Your task to perform on an android device: Open Chrome and go to settings Image 0: 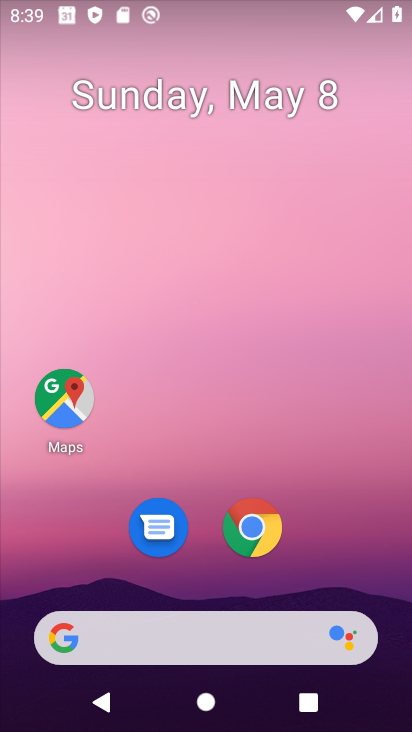
Step 0: click (254, 527)
Your task to perform on an android device: Open Chrome and go to settings Image 1: 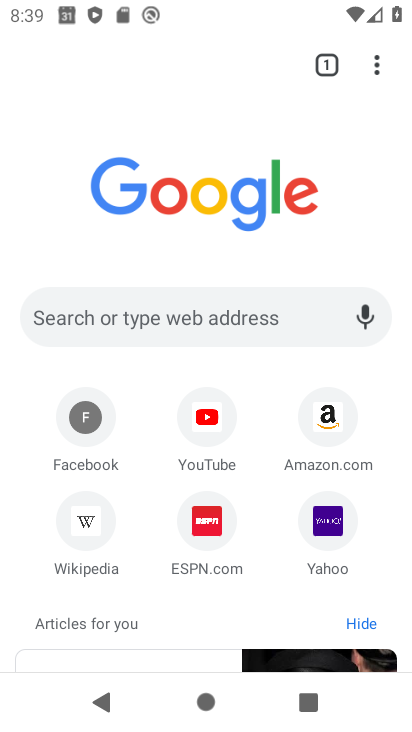
Step 1: click (372, 65)
Your task to perform on an android device: Open Chrome and go to settings Image 2: 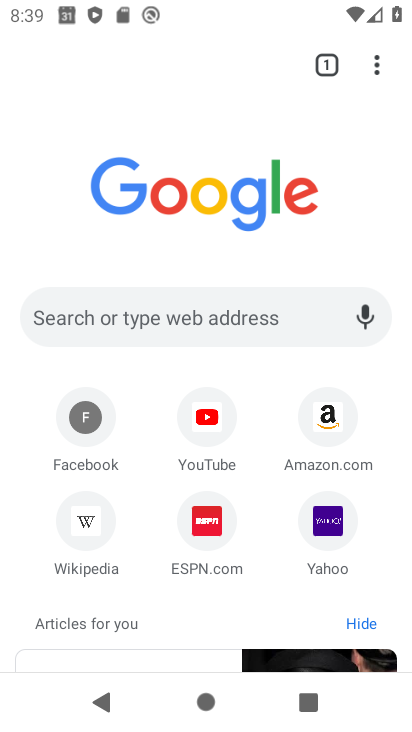
Step 2: click (369, 61)
Your task to perform on an android device: Open Chrome and go to settings Image 3: 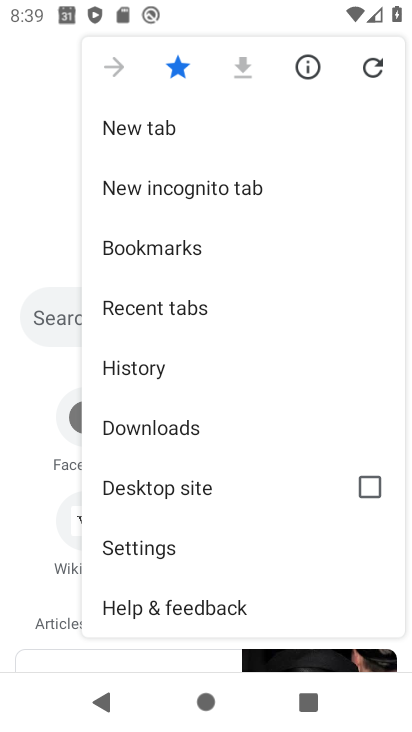
Step 3: click (170, 544)
Your task to perform on an android device: Open Chrome and go to settings Image 4: 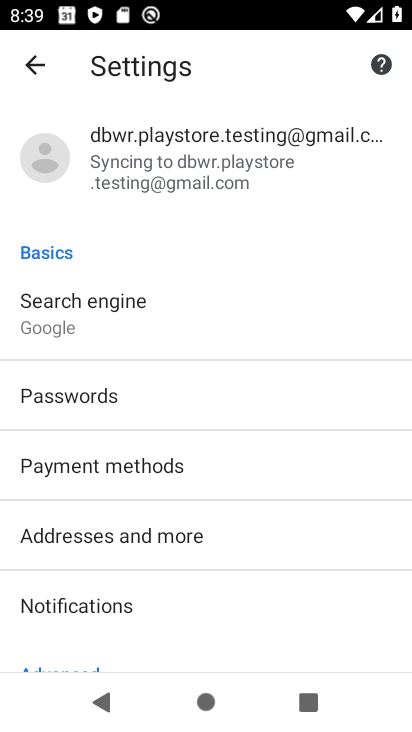
Step 4: task complete